Your task to perform on an android device: turn off picture-in-picture Image 0: 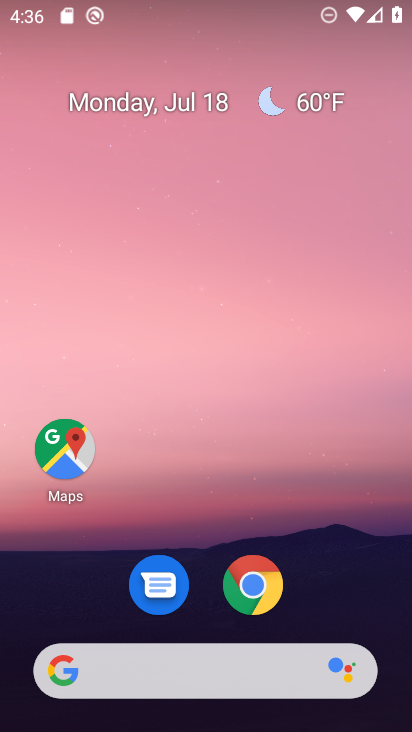
Step 0: click (253, 586)
Your task to perform on an android device: turn off picture-in-picture Image 1: 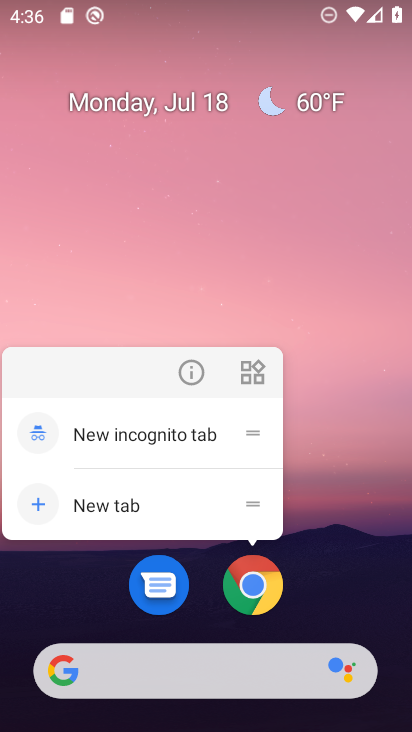
Step 1: click (195, 363)
Your task to perform on an android device: turn off picture-in-picture Image 2: 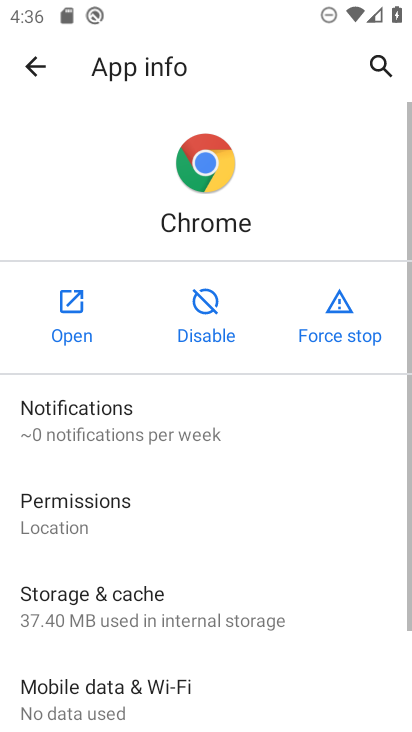
Step 2: drag from (268, 589) to (330, 17)
Your task to perform on an android device: turn off picture-in-picture Image 3: 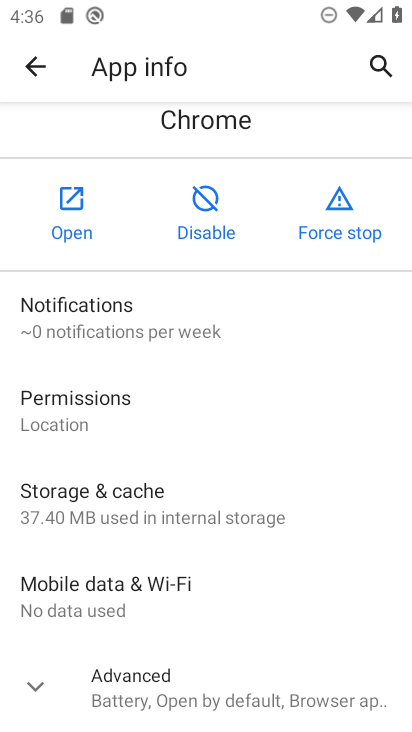
Step 3: click (33, 680)
Your task to perform on an android device: turn off picture-in-picture Image 4: 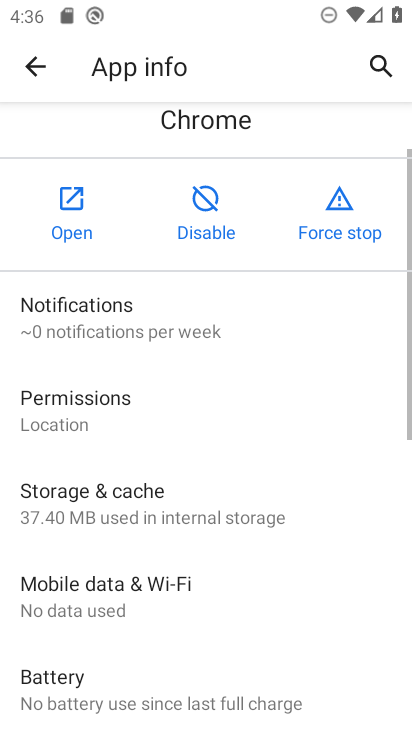
Step 4: drag from (262, 610) to (339, 0)
Your task to perform on an android device: turn off picture-in-picture Image 5: 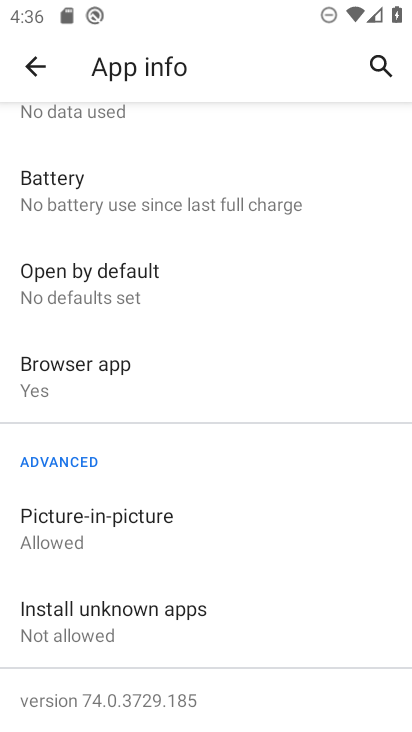
Step 5: click (122, 523)
Your task to perform on an android device: turn off picture-in-picture Image 6: 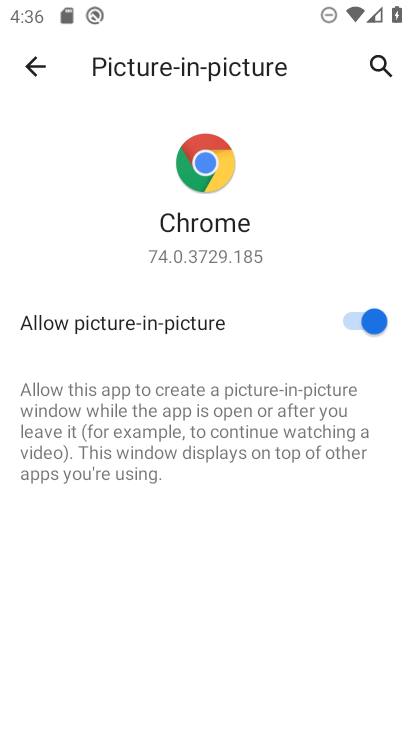
Step 6: click (369, 306)
Your task to perform on an android device: turn off picture-in-picture Image 7: 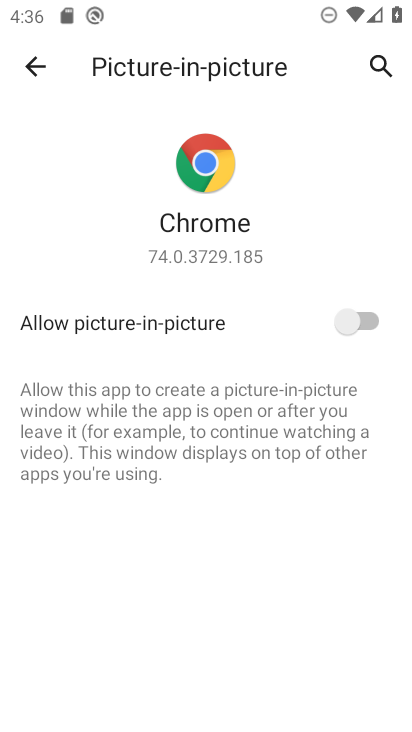
Step 7: task complete